Your task to perform on an android device: Open Google Chrome and open the bookmarks view Image 0: 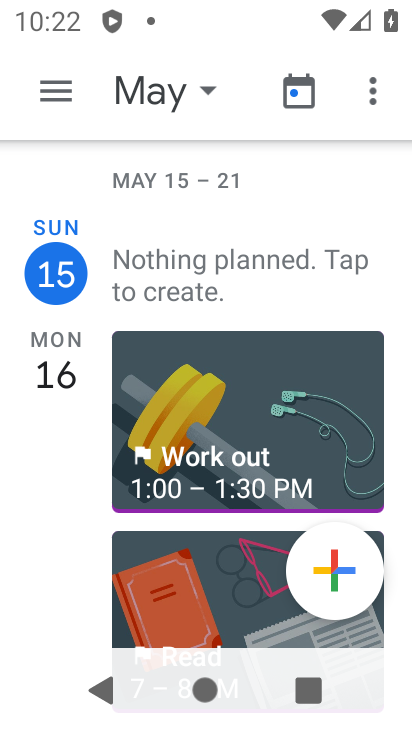
Step 0: press home button
Your task to perform on an android device: Open Google Chrome and open the bookmarks view Image 1: 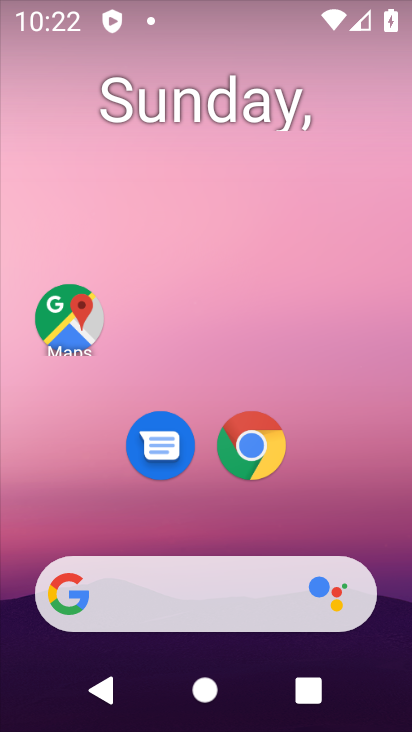
Step 1: click (251, 447)
Your task to perform on an android device: Open Google Chrome and open the bookmarks view Image 2: 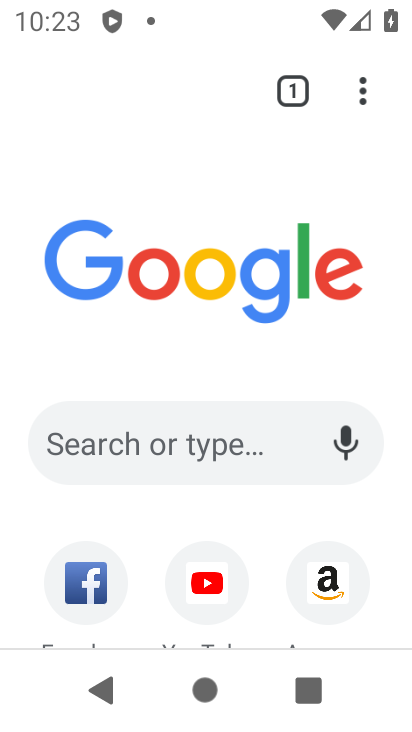
Step 2: click (358, 95)
Your task to perform on an android device: Open Google Chrome and open the bookmarks view Image 3: 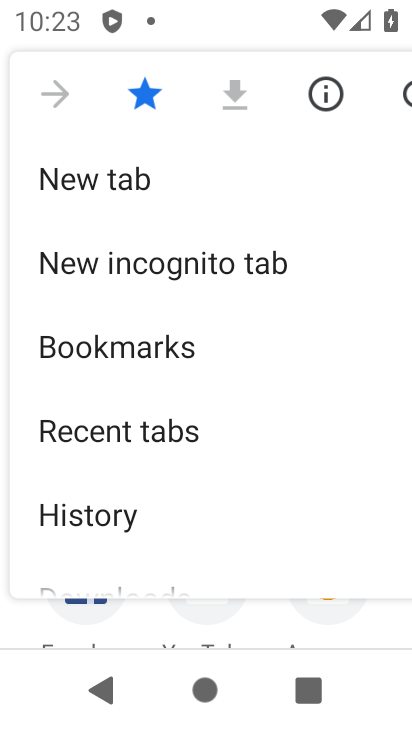
Step 3: click (148, 336)
Your task to perform on an android device: Open Google Chrome and open the bookmarks view Image 4: 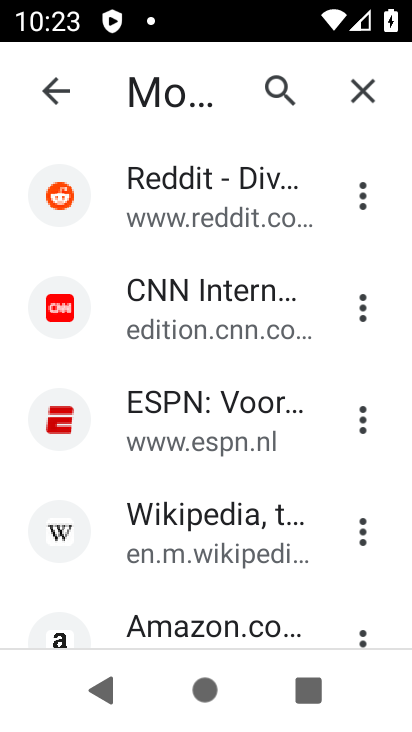
Step 4: task complete